Your task to perform on an android device: turn off location Image 0: 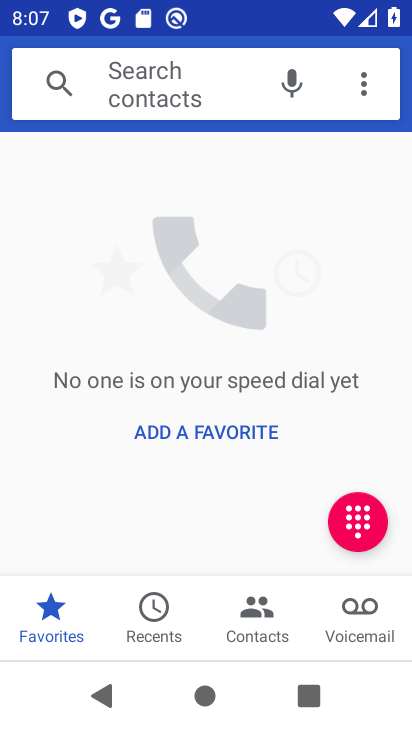
Step 0: press back button
Your task to perform on an android device: turn off location Image 1: 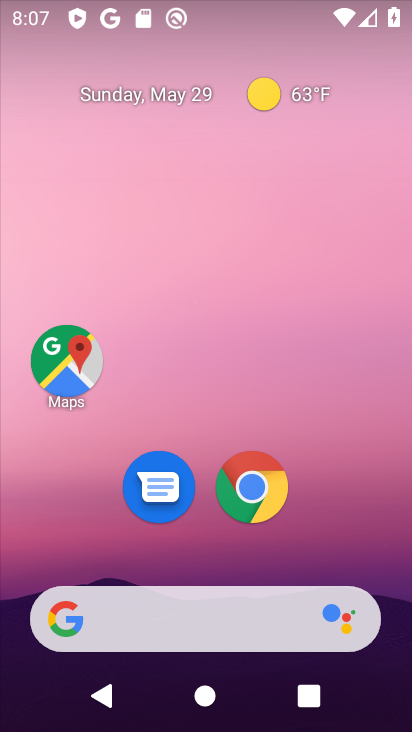
Step 1: drag from (322, 535) to (291, 133)
Your task to perform on an android device: turn off location Image 2: 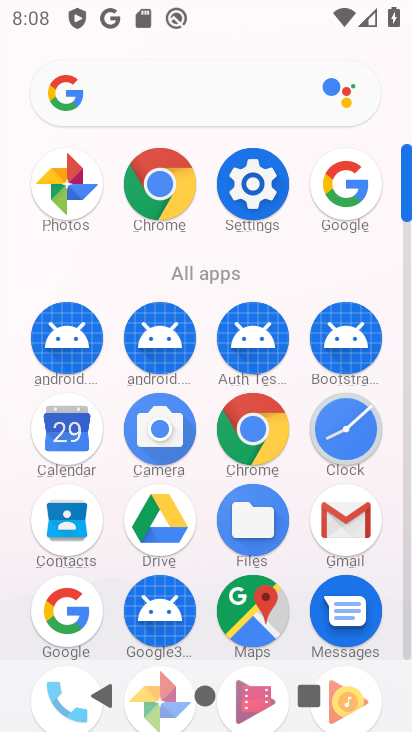
Step 2: click (252, 185)
Your task to perform on an android device: turn off location Image 3: 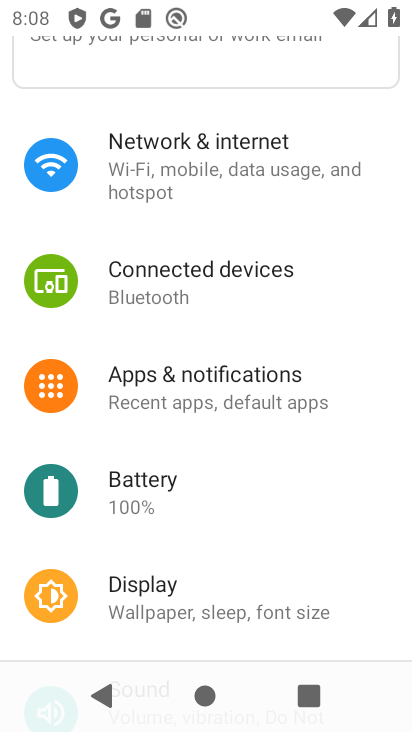
Step 3: drag from (191, 548) to (233, 410)
Your task to perform on an android device: turn off location Image 4: 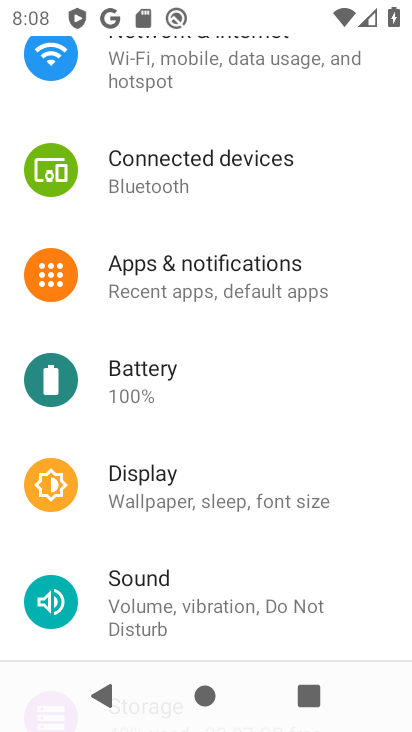
Step 4: drag from (131, 549) to (215, 390)
Your task to perform on an android device: turn off location Image 5: 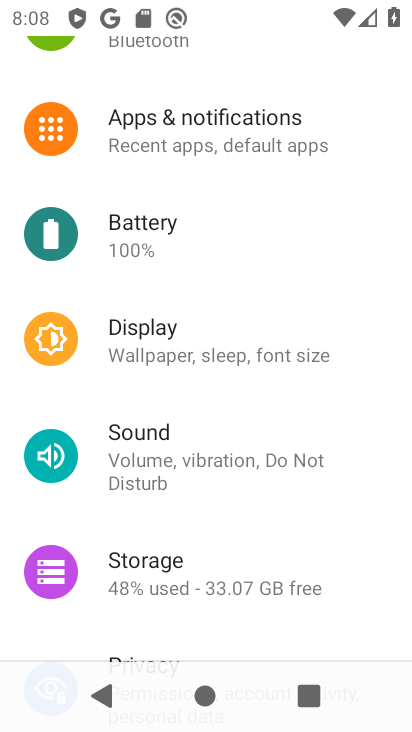
Step 5: drag from (137, 521) to (216, 395)
Your task to perform on an android device: turn off location Image 6: 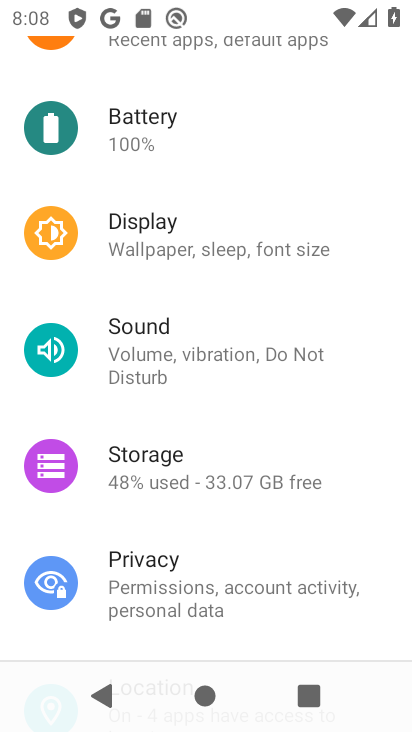
Step 6: drag from (149, 541) to (231, 420)
Your task to perform on an android device: turn off location Image 7: 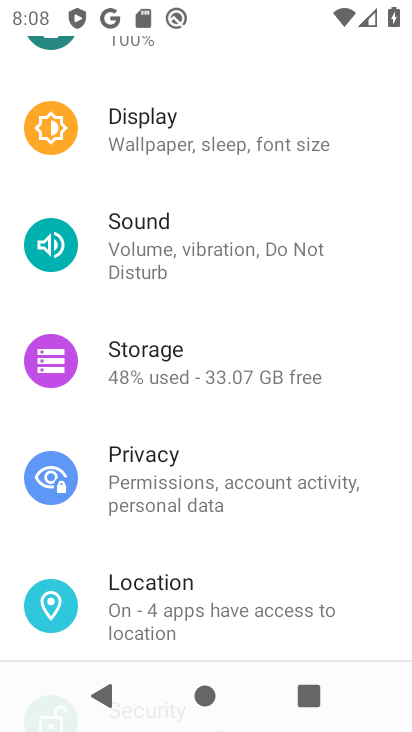
Step 7: drag from (147, 552) to (232, 432)
Your task to perform on an android device: turn off location Image 8: 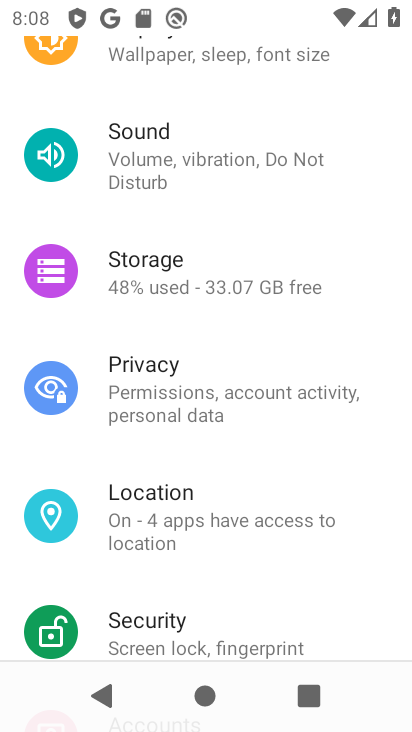
Step 8: click (174, 515)
Your task to perform on an android device: turn off location Image 9: 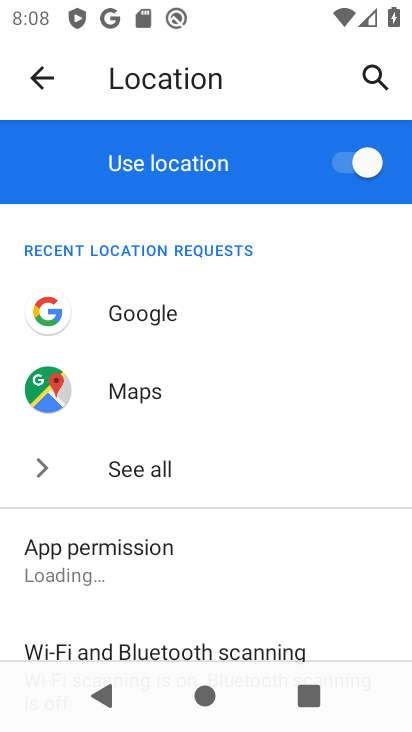
Step 9: click (339, 161)
Your task to perform on an android device: turn off location Image 10: 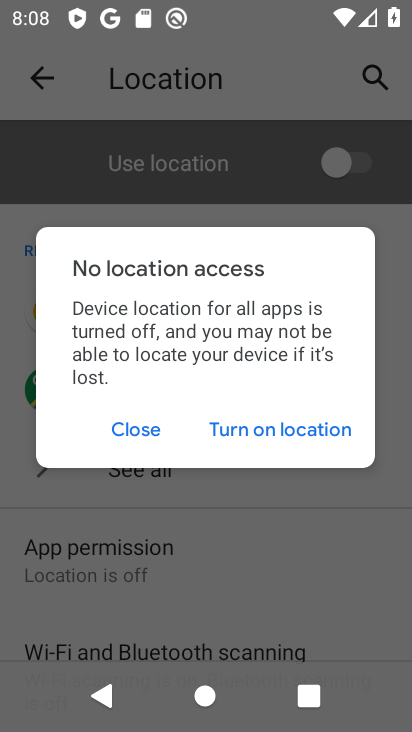
Step 10: click (153, 428)
Your task to perform on an android device: turn off location Image 11: 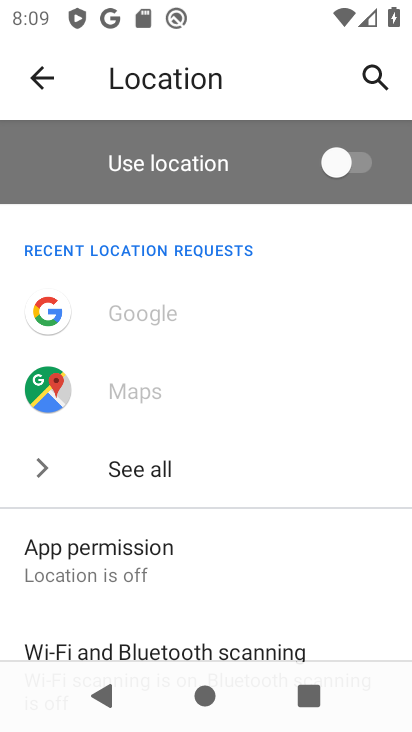
Step 11: task complete